Your task to perform on an android device: Go to CNN.com Image 0: 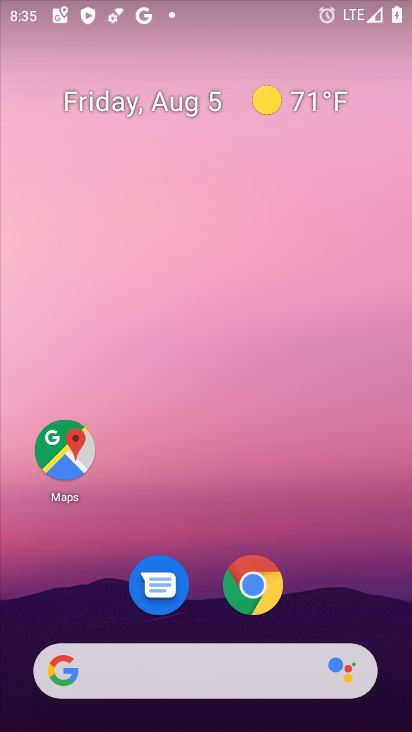
Step 0: click (196, 674)
Your task to perform on an android device: Go to CNN.com Image 1: 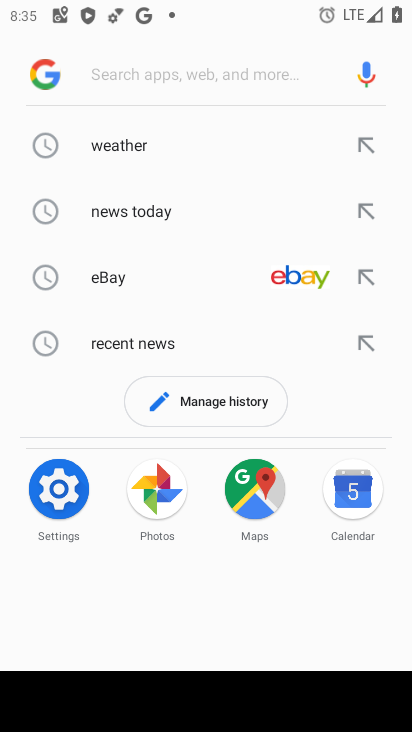
Step 1: type "cnn.com"
Your task to perform on an android device: Go to CNN.com Image 2: 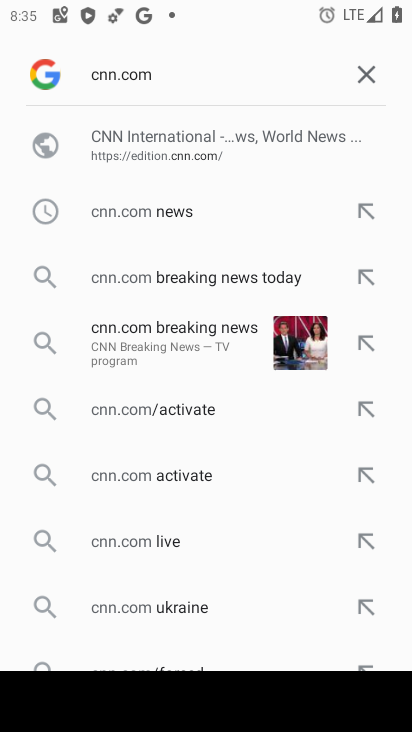
Step 2: click (232, 147)
Your task to perform on an android device: Go to CNN.com Image 3: 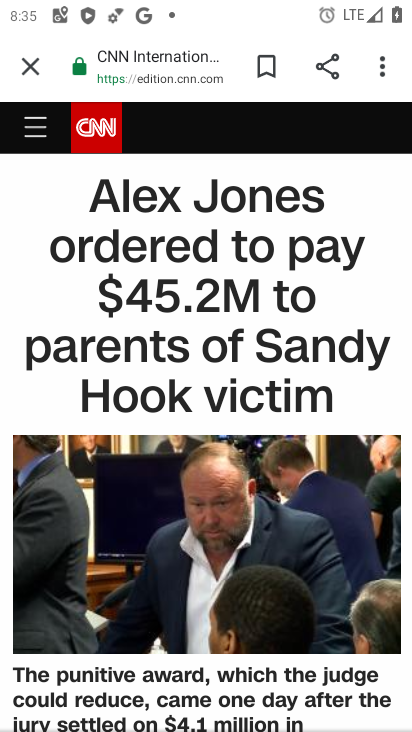
Step 3: task complete